Your task to perform on an android device: turn vacation reply on in the gmail app Image 0: 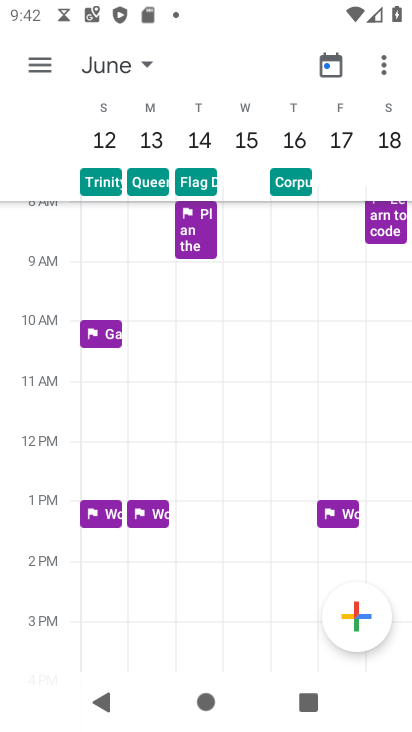
Step 0: press home button
Your task to perform on an android device: turn vacation reply on in the gmail app Image 1: 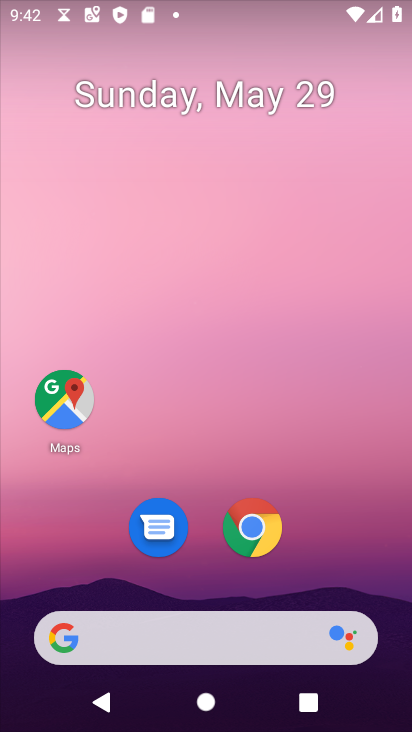
Step 1: drag from (195, 644) to (391, 77)
Your task to perform on an android device: turn vacation reply on in the gmail app Image 2: 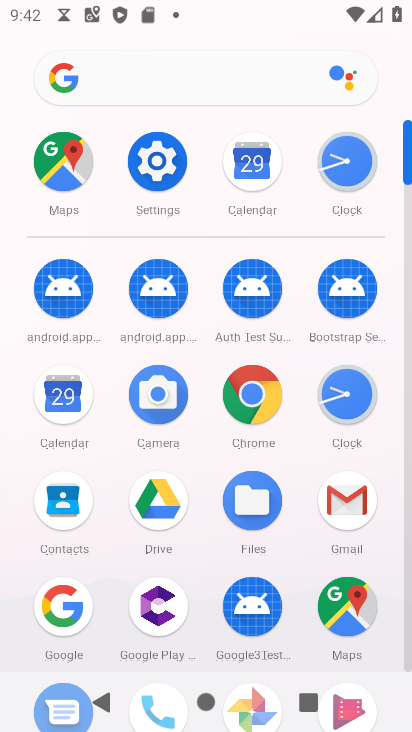
Step 2: click (354, 504)
Your task to perform on an android device: turn vacation reply on in the gmail app Image 3: 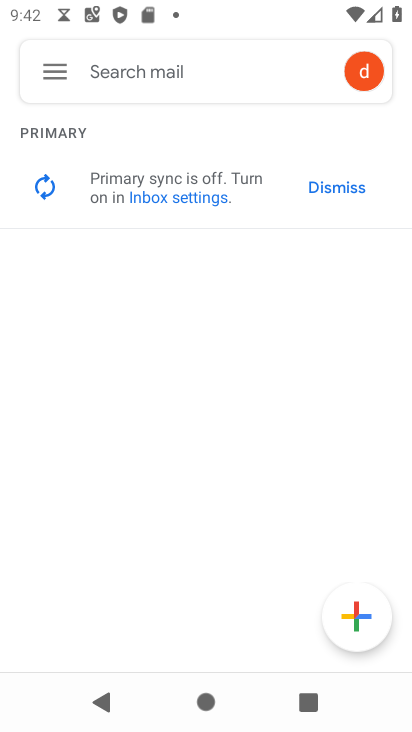
Step 3: click (51, 76)
Your task to perform on an android device: turn vacation reply on in the gmail app Image 4: 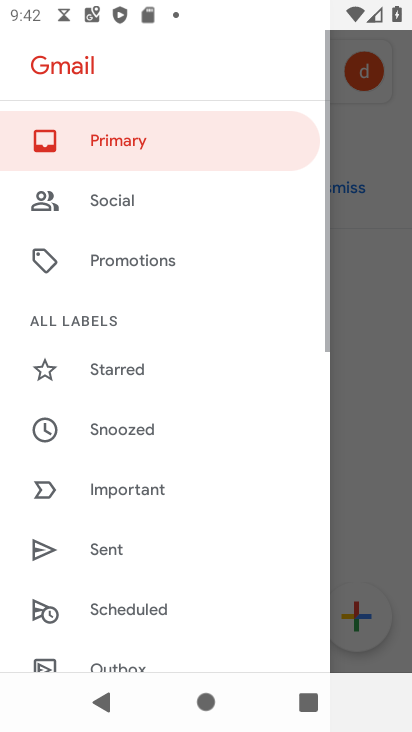
Step 4: drag from (211, 655) to (326, 92)
Your task to perform on an android device: turn vacation reply on in the gmail app Image 5: 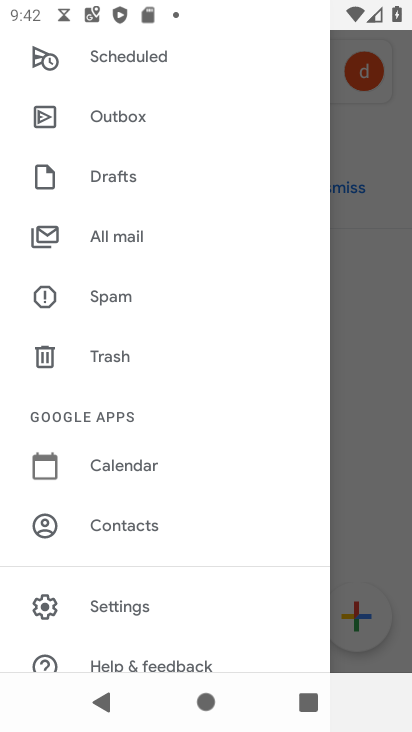
Step 5: click (128, 610)
Your task to perform on an android device: turn vacation reply on in the gmail app Image 6: 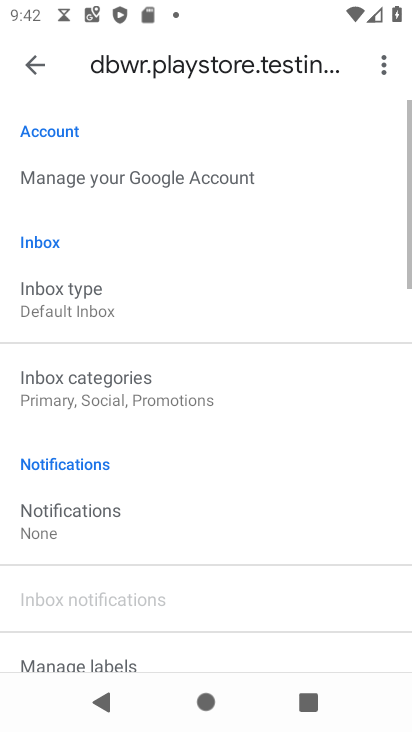
Step 6: drag from (210, 568) to (342, 69)
Your task to perform on an android device: turn vacation reply on in the gmail app Image 7: 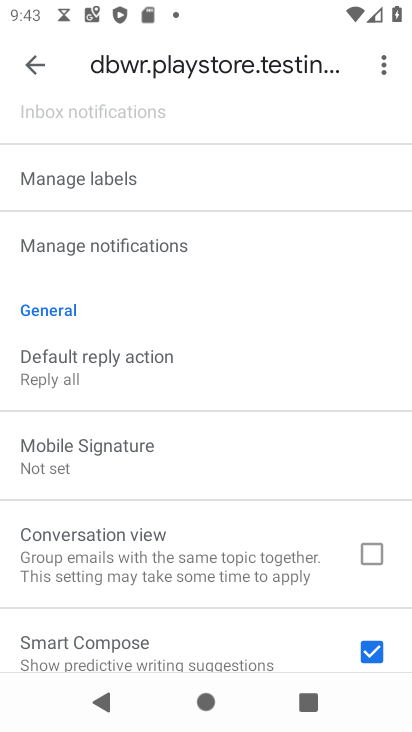
Step 7: drag from (219, 586) to (355, 165)
Your task to perform on an android device: turn vacation reply on in the gmail app Image 8: 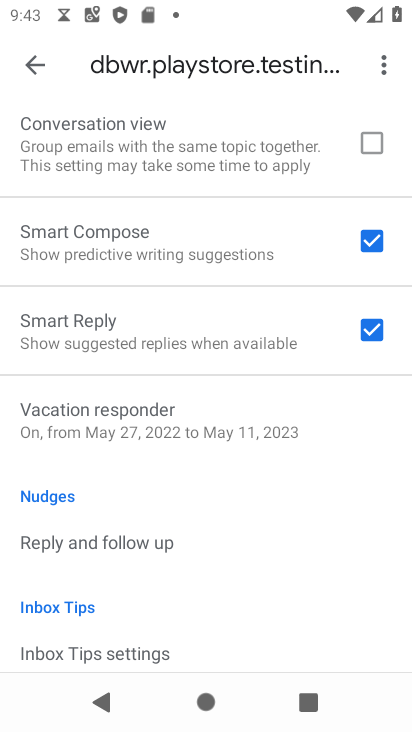
Step 8: click (141, 421)
Your task to perform on an android device: turn vacation reply on in the gmail app Image 9: 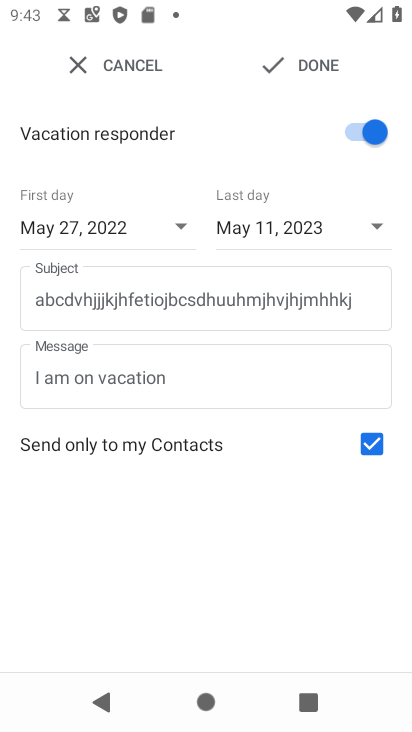
Step 9: task complete